Your task to perform on an android device: Toggle the flashlight Image 0: 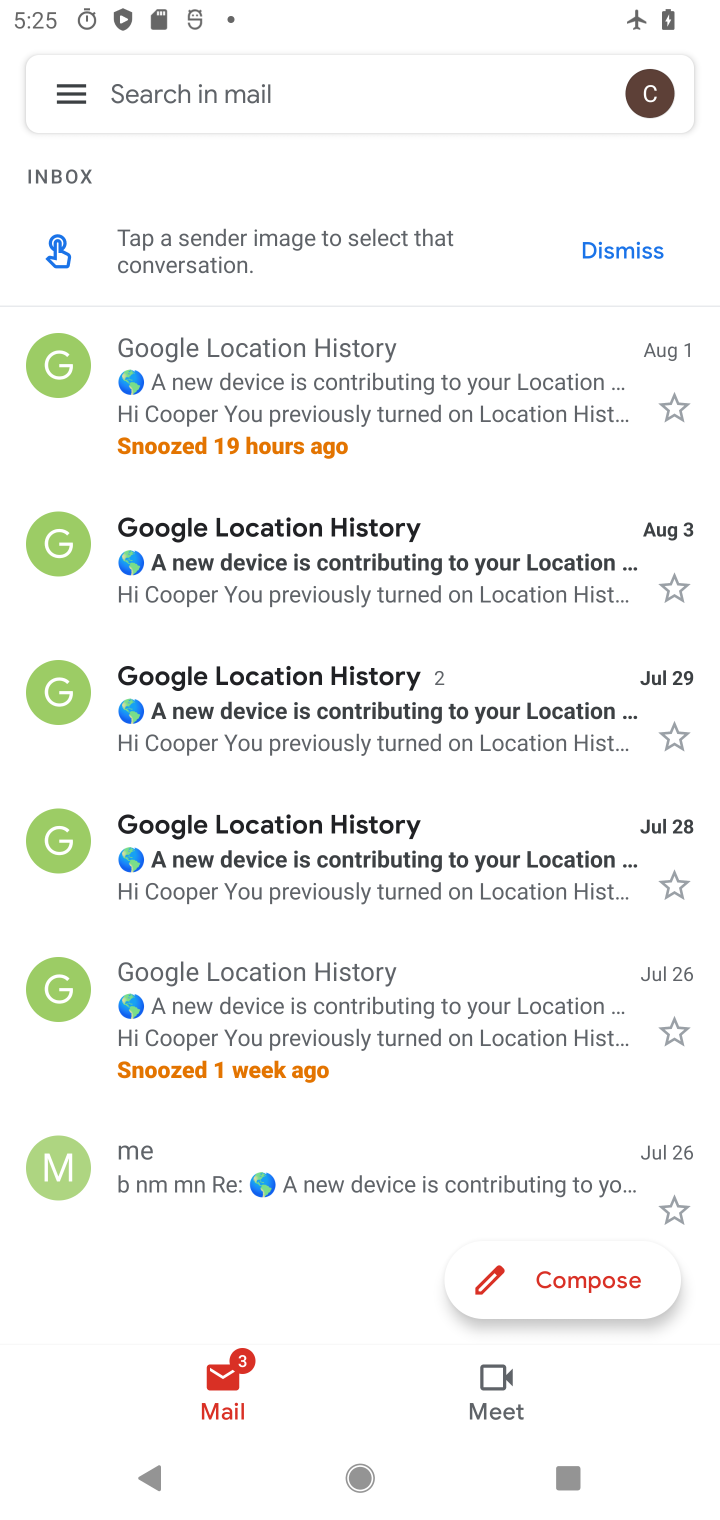
Step 0: press home button
Your task to perform on an android device: Toggle the flashlight Image 1: 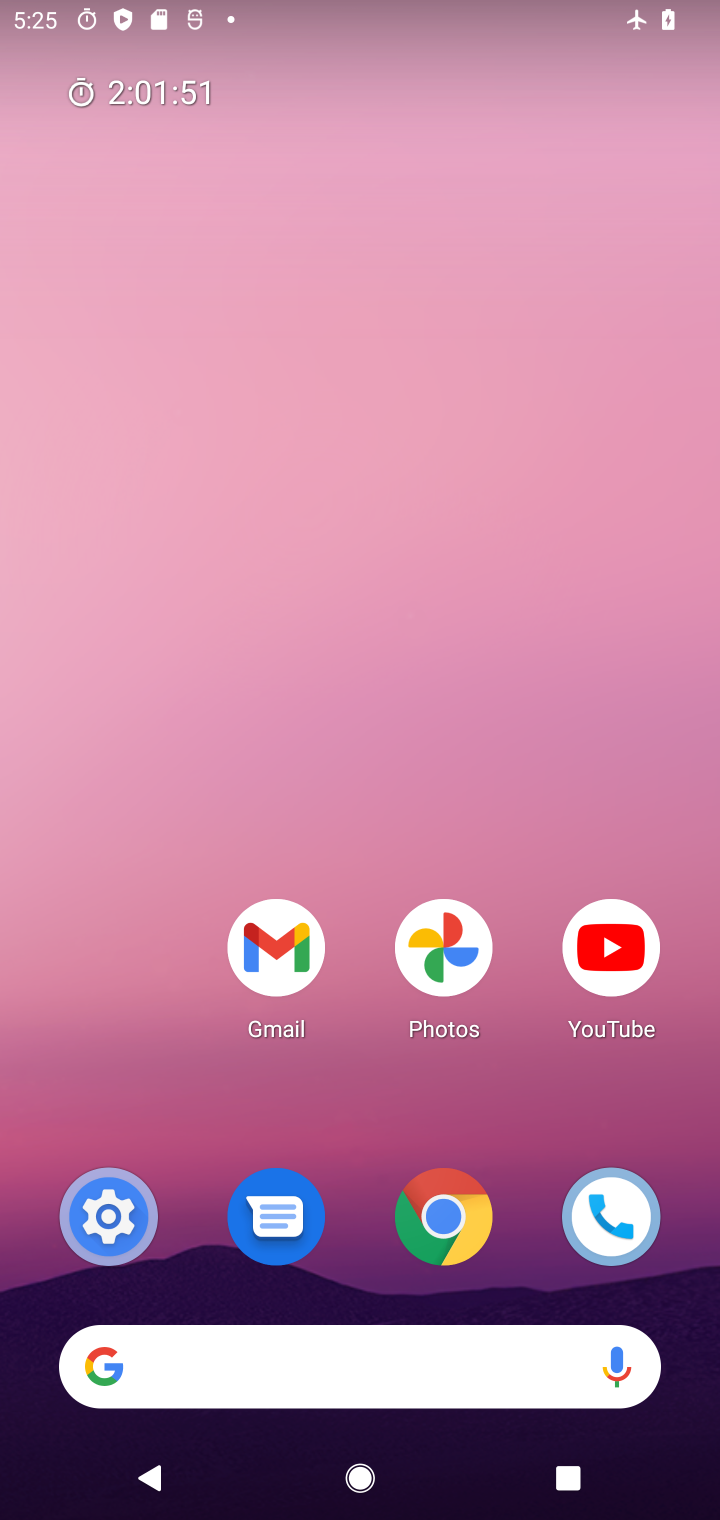
Step 1: drag from (538, 9) to (319, 921)
Your task to perform on an android device: Toggle the flashlight Image 2: 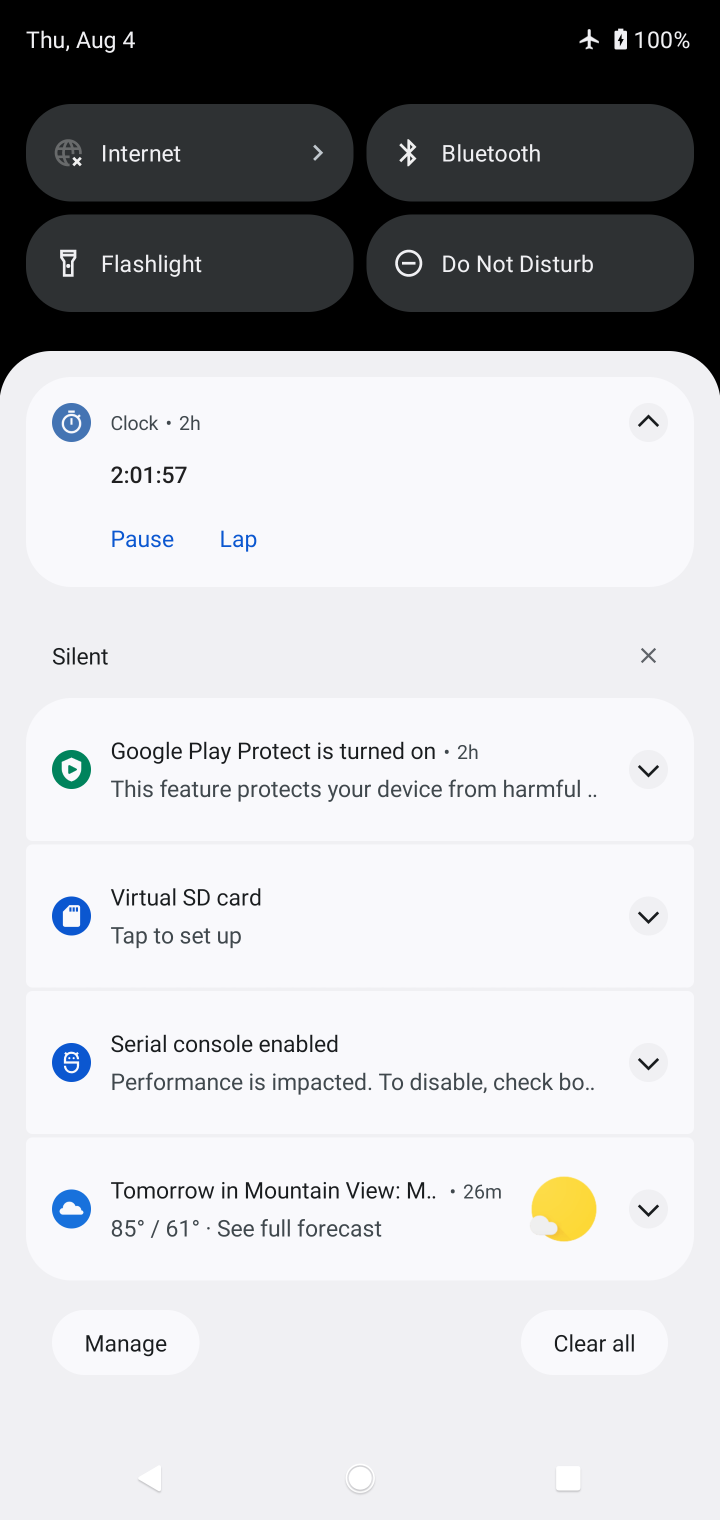
Step 2: click (191, 275)
Your task to perform on an android device: Toggle the flashlight Image 3: 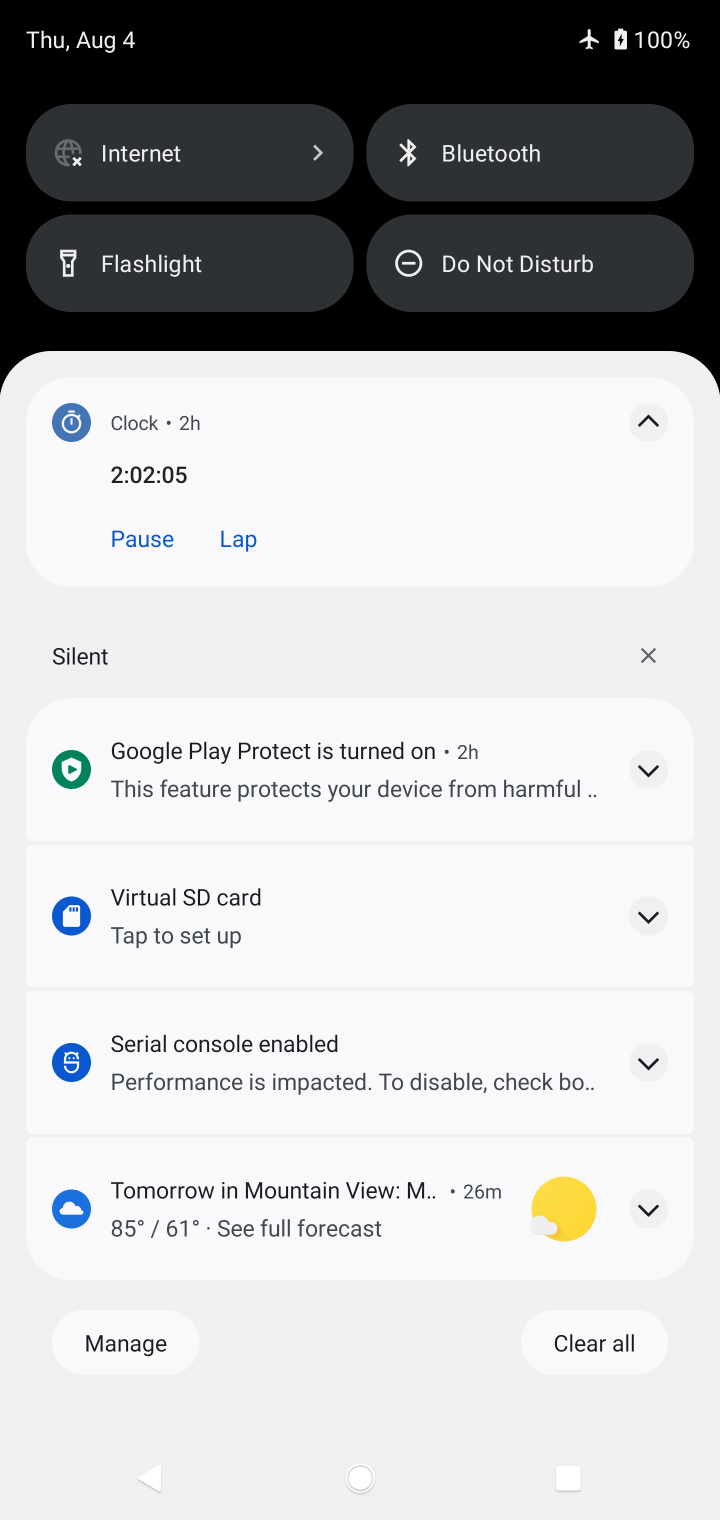
Step 3: click (191, 273)
Your task to perform on an android device: Toggle the flashlight Image 4: 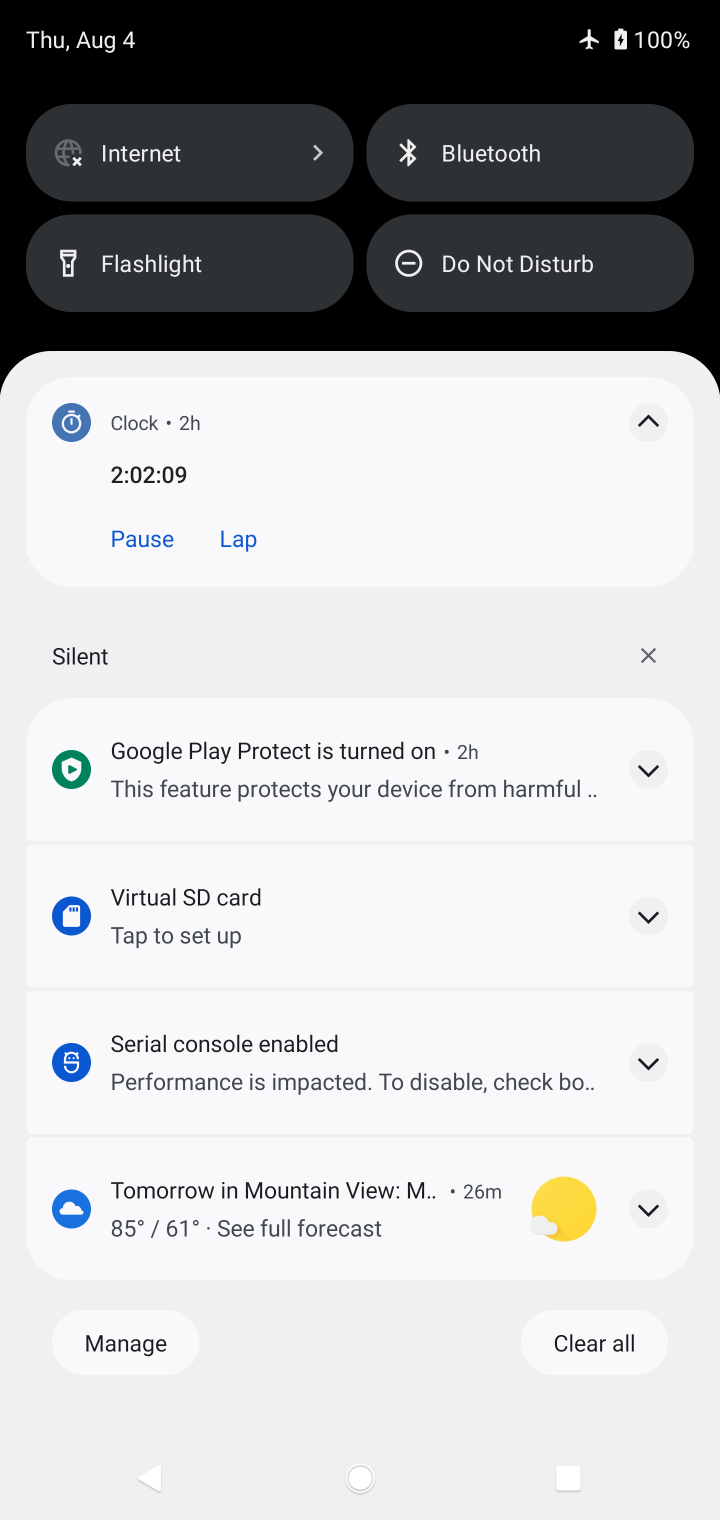
Step 4: task complete